Your task to perform on an android device: Open Wikipedia Image 0: 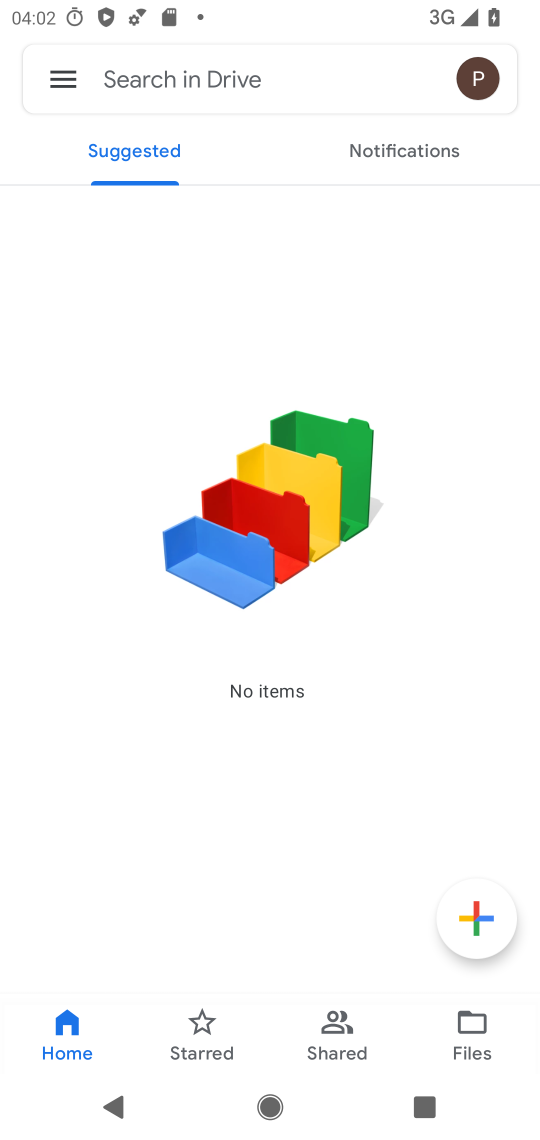
Step 0: press home button
Your task to perform on an android device: Open Wikipedia Image 1: 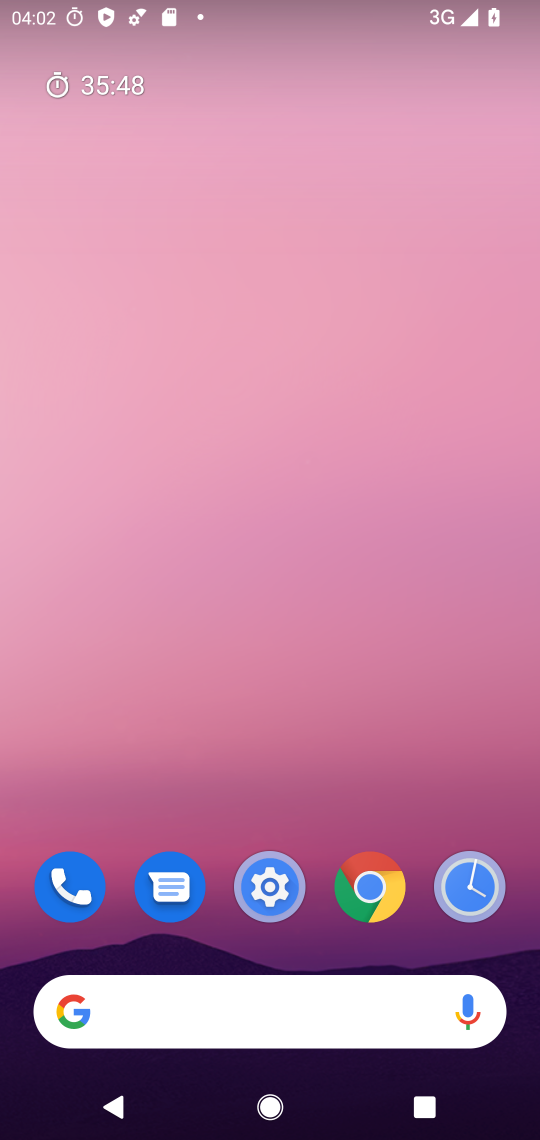
Step 1: drag from (401, 773) to (414, 240)
Your task to perform on an android device: Open Wikipedia Image 2: 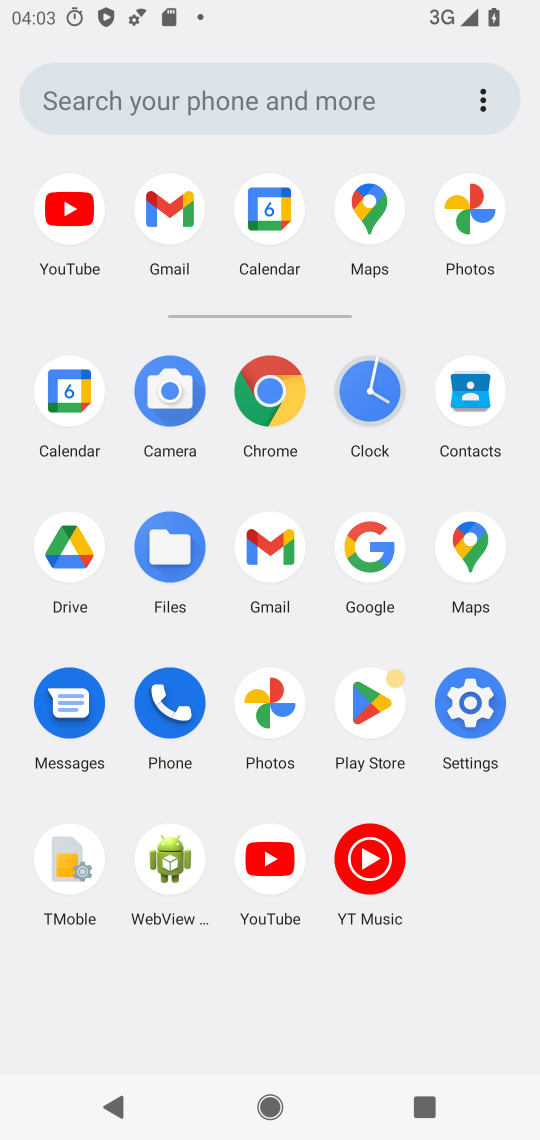
Step 2: click (266, 389)
Your task to perform on an android device: Open Wikipedia Image 3: 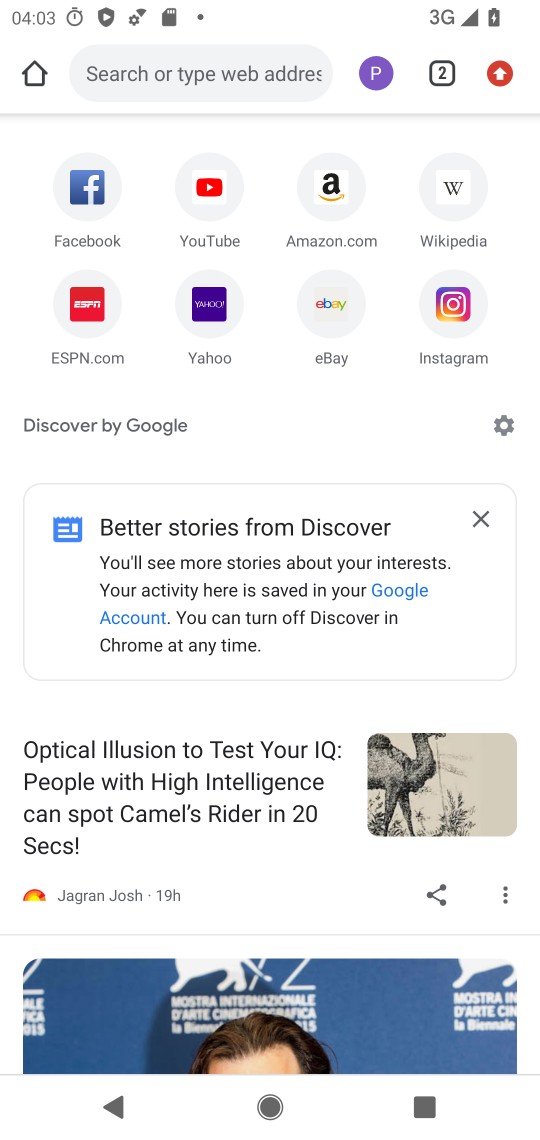
Step 3: click (260, 57)
Your task to perform on an android device: Open Wikipedia Image 4: 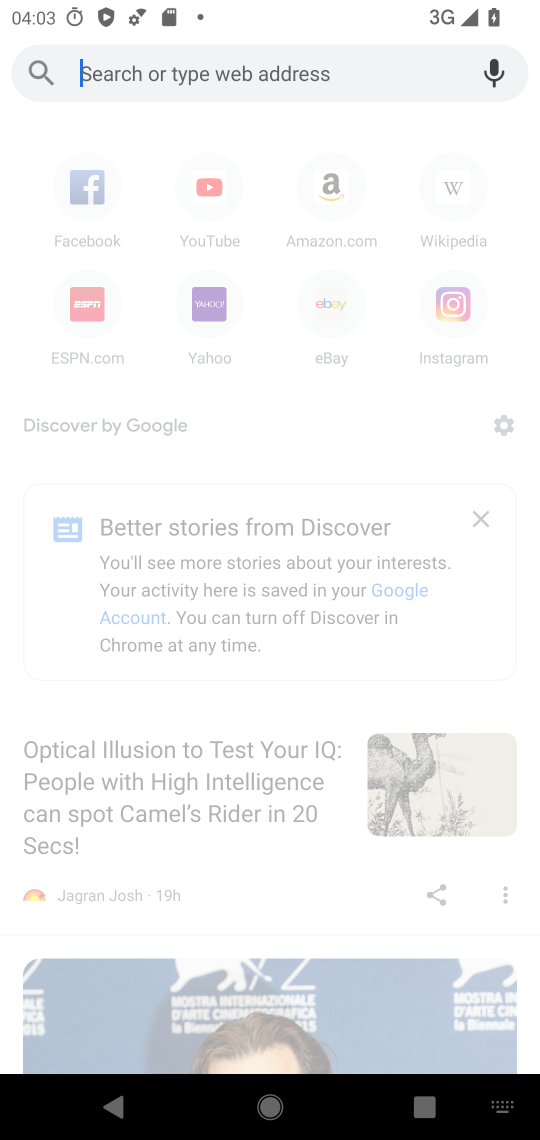
Step 4: type "wikipedia"
Your task to perform on an android device: Open Wikipedia Image 5: 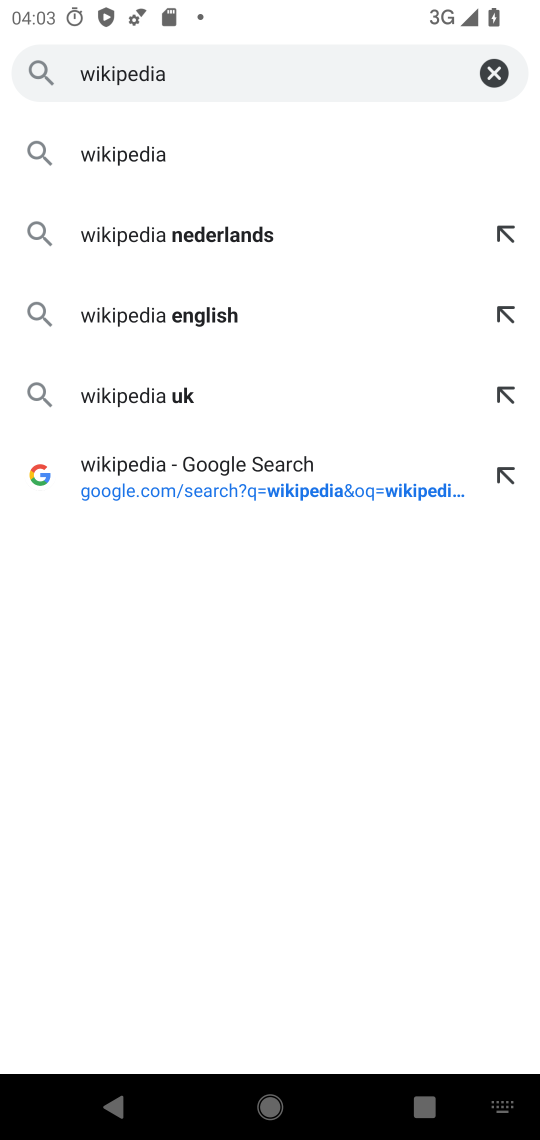
Step 5: click (170, 151)
Your task to perform on an android device: Open Wikipedia Image 6: 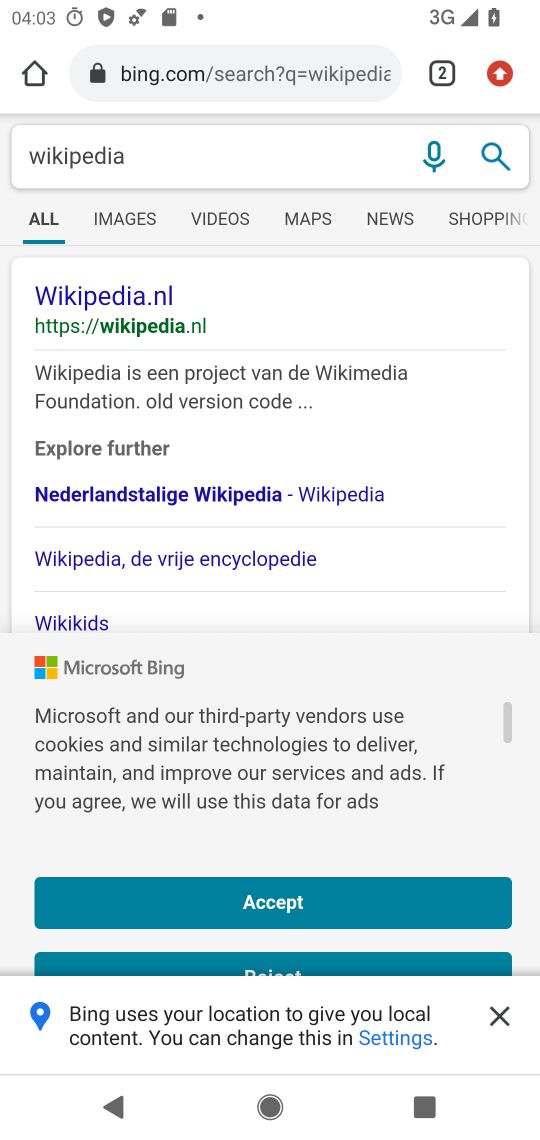
Step 6: task complete